Your task to perform on an android device: turn pop-ups off in chrome Image 0: 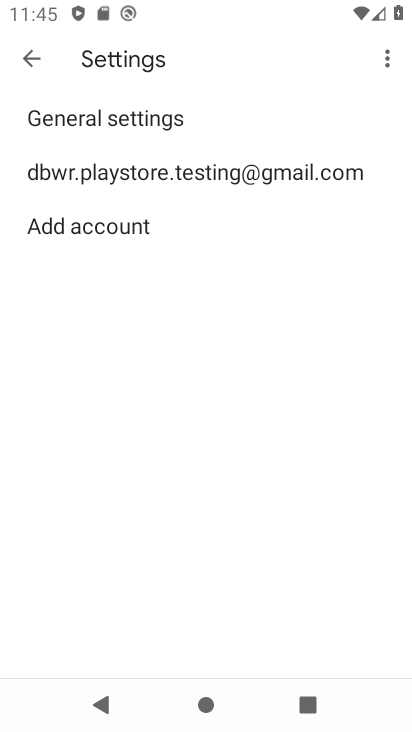
Step 0: press home button
Your task to perform on an android device: turn pop-ups off in chrome Image 1: 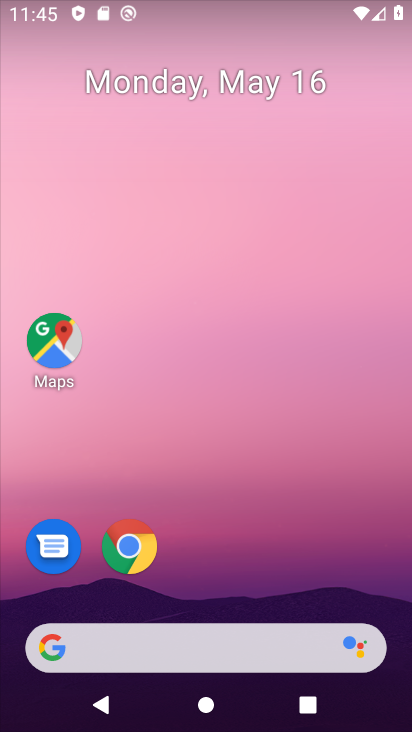
Step 1: click (135, 548)
Your task to perform on an android device: turn pop-ups off in chrome Image 2: 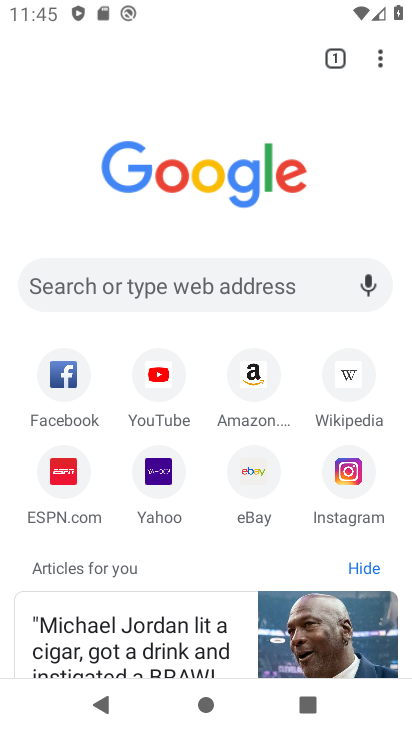
Step 2: click (375, 63)
Your task to perform on an android device: turn pop-ups off in chrome Image 3: 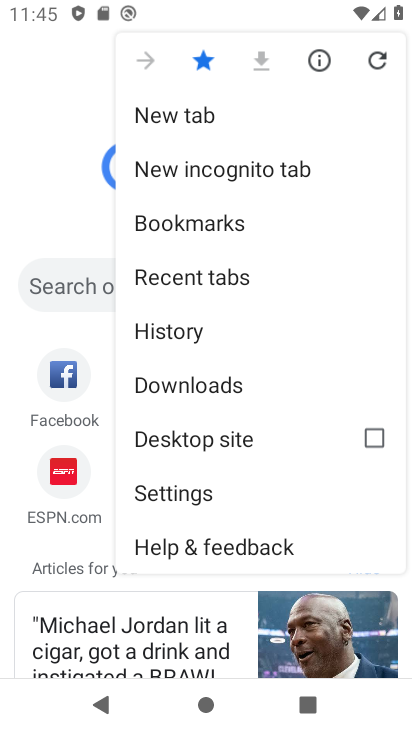
Step 3: click (205, 496)
Your task to perform on an android device: turn pop-ups off in chrome Image 4: 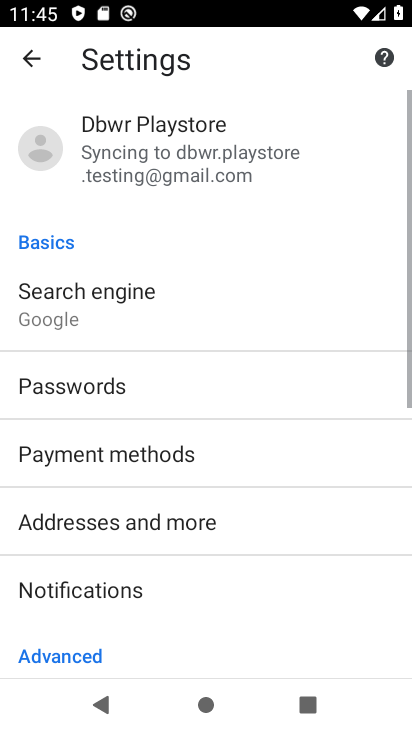
Step 4: drag from (156, 493) to (126, 62)
Your task to perform on an android device: turn pop-ups off in chrome Image 5: 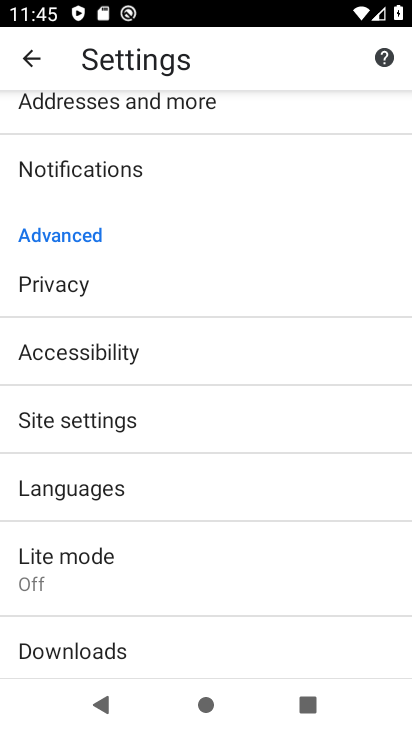
Step 5: click (130, 422)
Your task to perform on an android device: turn pop-ups off in chrome Image 6: 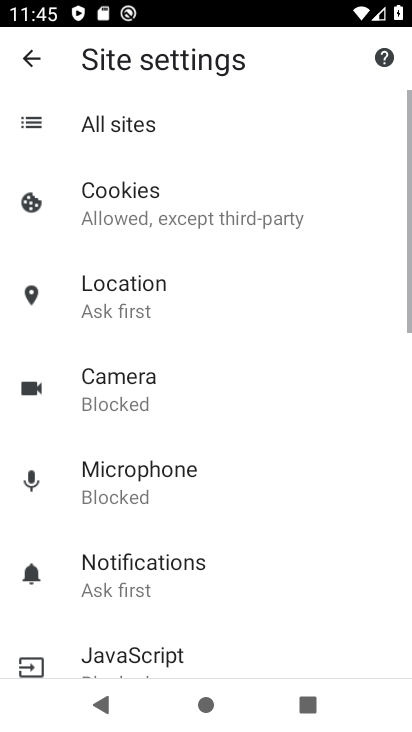
Step 6: drag from (240, 594) to (220, 264)
Your task to perform on an android device: turn pop-ups off in chrome Image 7: 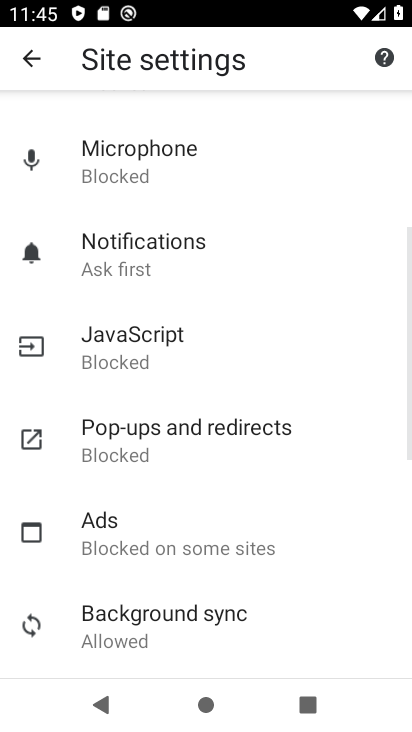
Step 7: click (169, 452)
Your task to perform on an android device: turn pop-ups off in chrome Image 8: 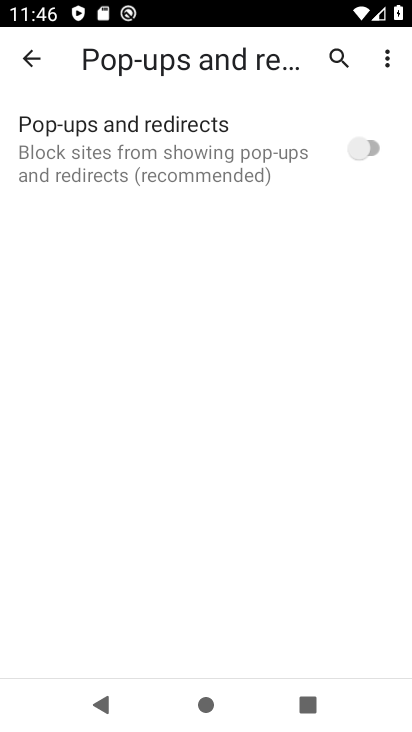
Step 8: task complete